Your task to perform on an android device: toggle priority inbox in the gmail app Image 0: 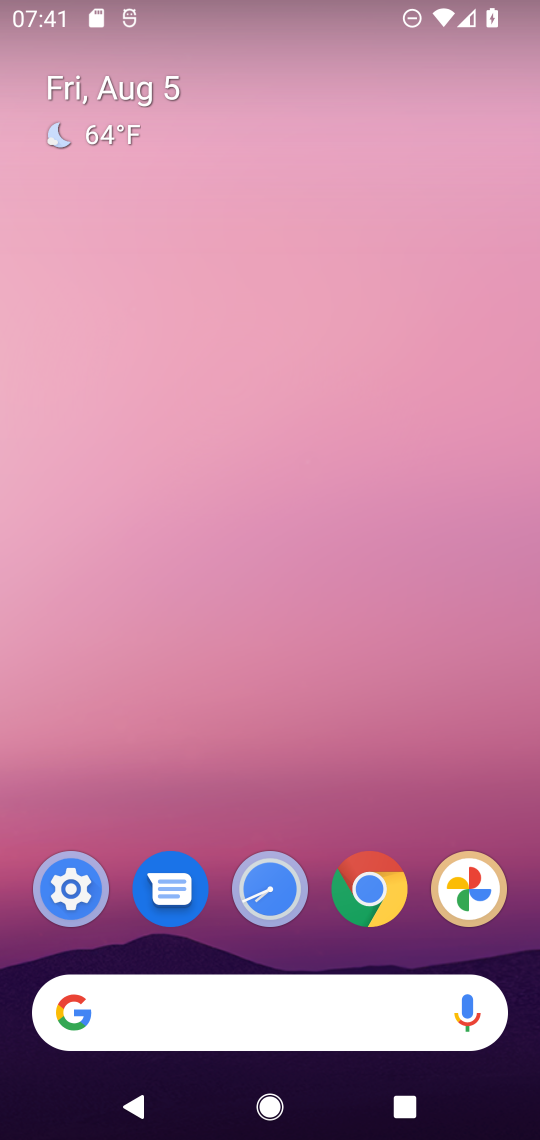
Step 0: drag from (371, 754) to (408, 485)
Your task to perform on an android device: toggle priority inbox in the gmail app Image 1: 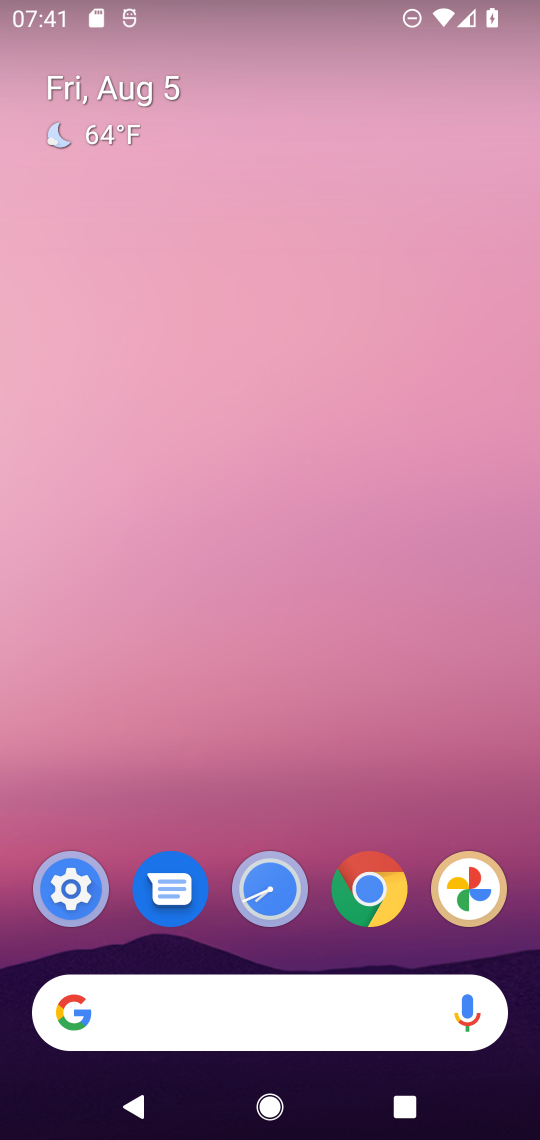
Step 1: drag from (323, 985) to (346, 524)
Your task to perform on an android device: toggle priority inbox in the gmail app Image 2: 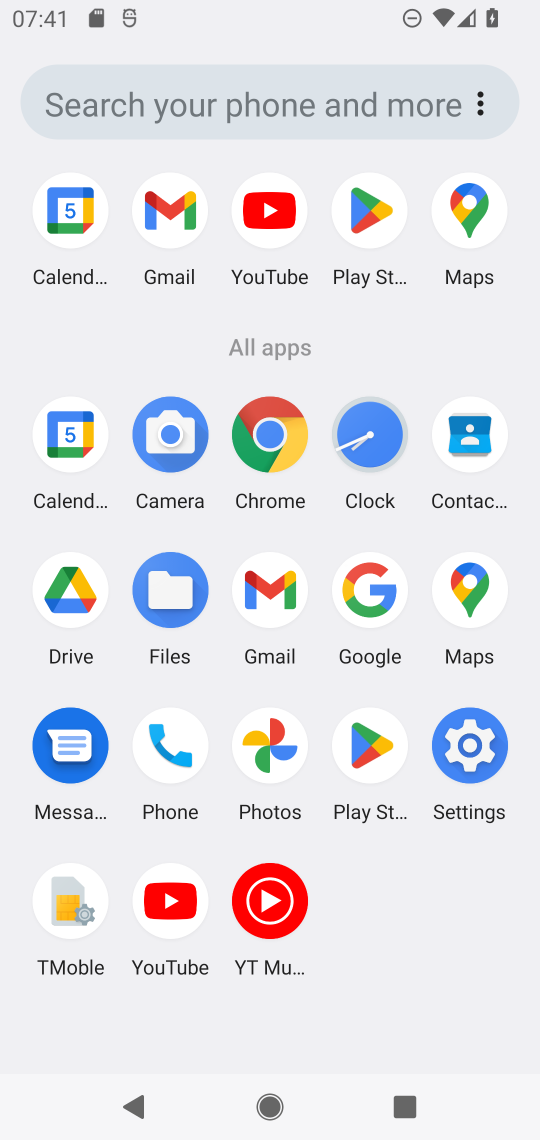
Step 2: click (273, 585)
Your task to perform on an android device: toggle priority inbox in the gmail app Image 3: 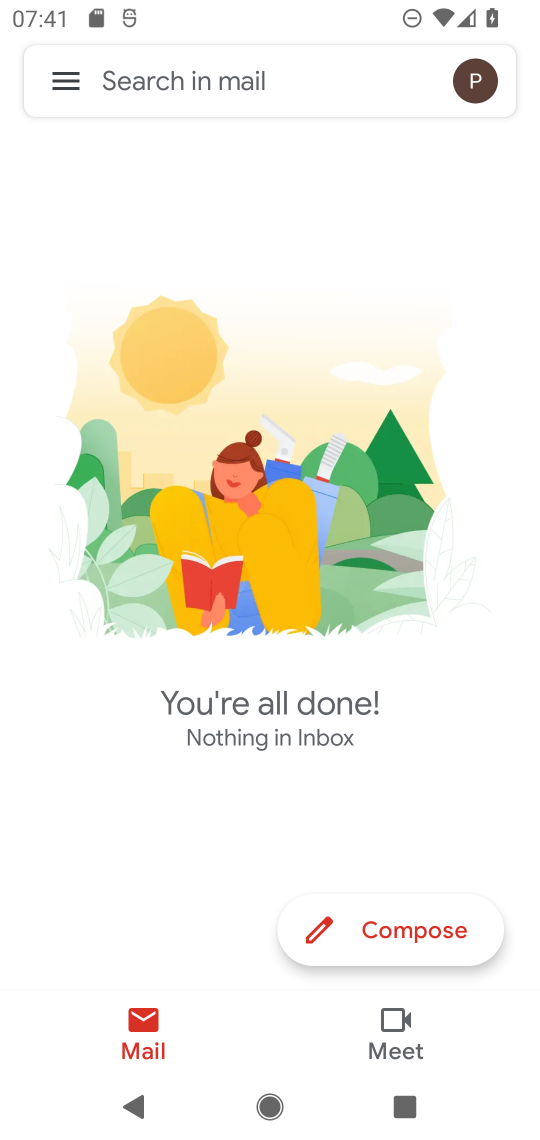
Step 3: click (66, 87)
Your task to perform on an android device: toggle priority inbox in the gmail app Image 4: 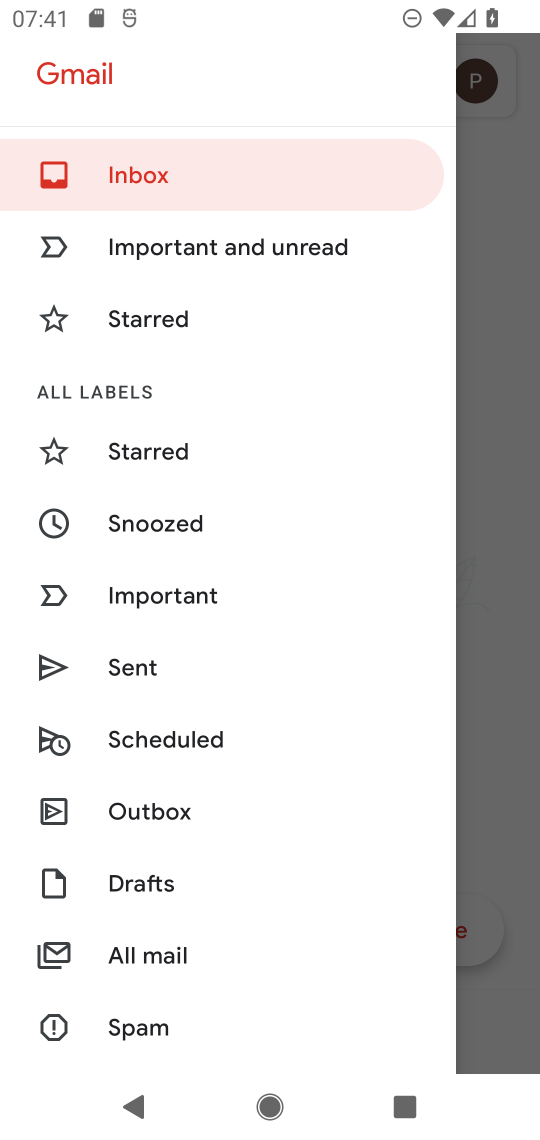
Step 4: drag from (214, 1040) to (214, 543)
Your task to perform on an android device: toggle priority inbox in the gmail app Image 5: 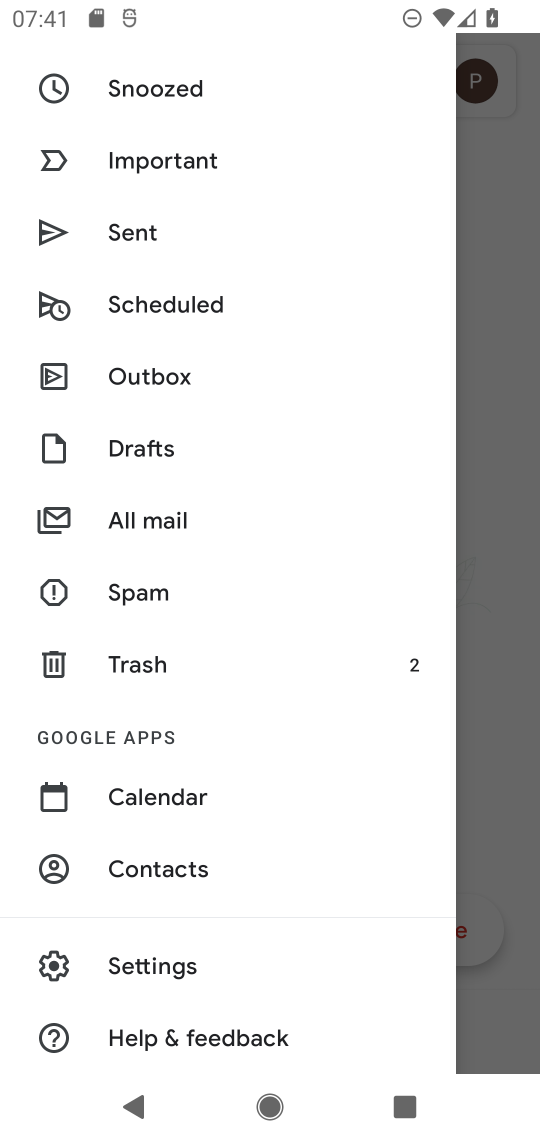
Step 5: click (161, 975)
Your task to perform on an android device: toggle priority inbox in the gmail app Image 6: 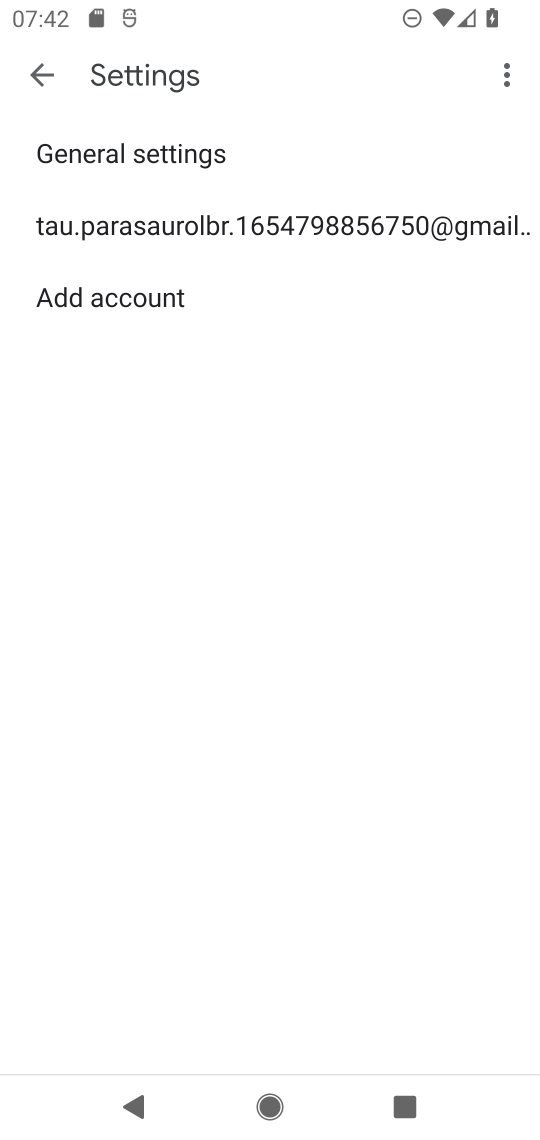
Step 6: click (233, 220)
Your task to perform on an android device: toggle priority inbox in the gmail app Image 7: 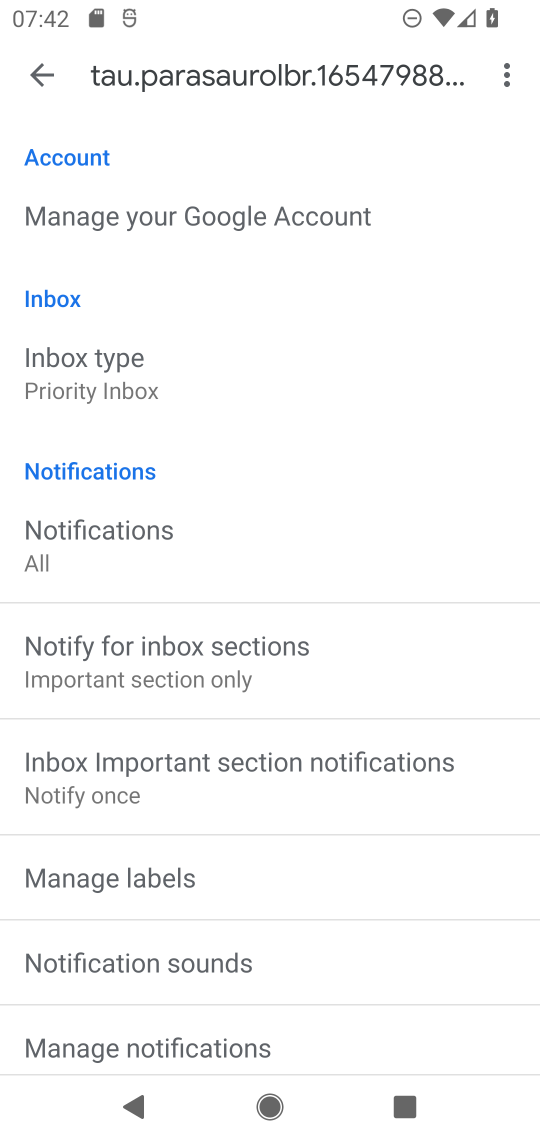
Step 7: click (128, 387)
Your task to perform on an android device: toggle priority inbox in the gmail app Image 8: 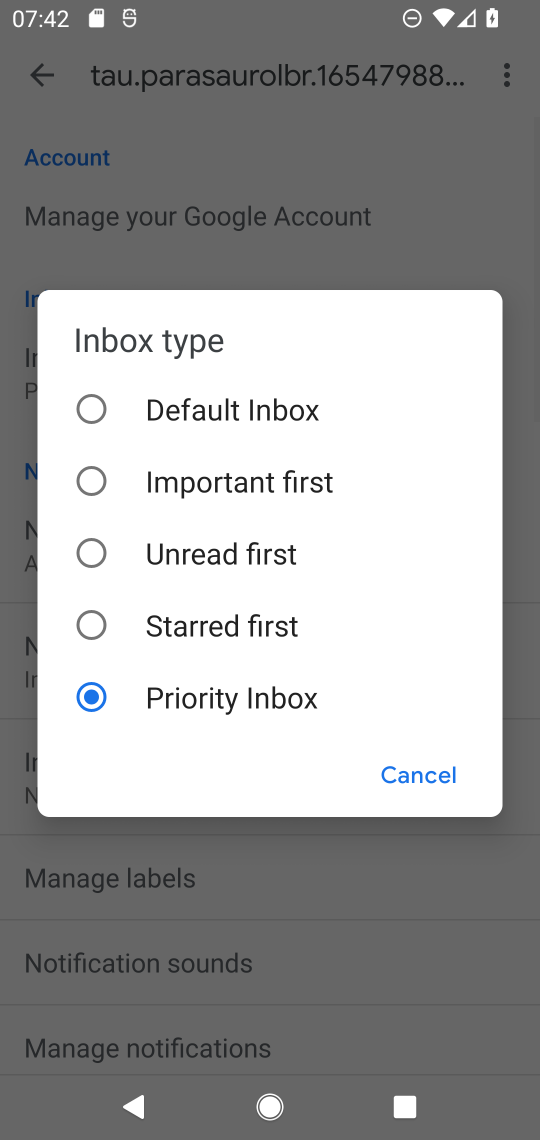
Step 8: click (156, 412)
Your task to perform on an android device: toggle priority inbox in the gmail app Image 9: 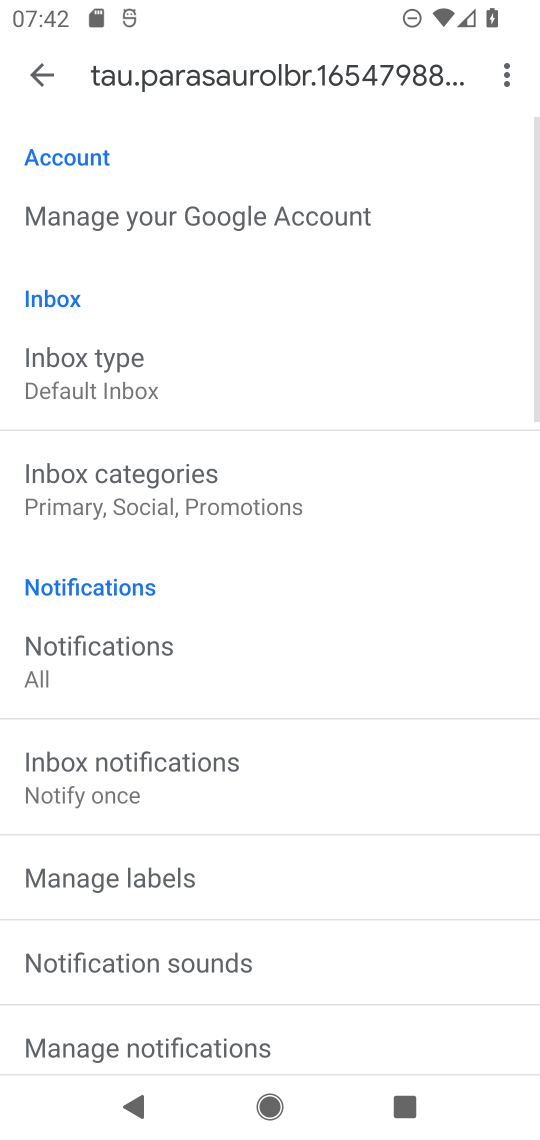
Step 9: task complete